Your task to perform on an android device: Go to Maps Image 0: 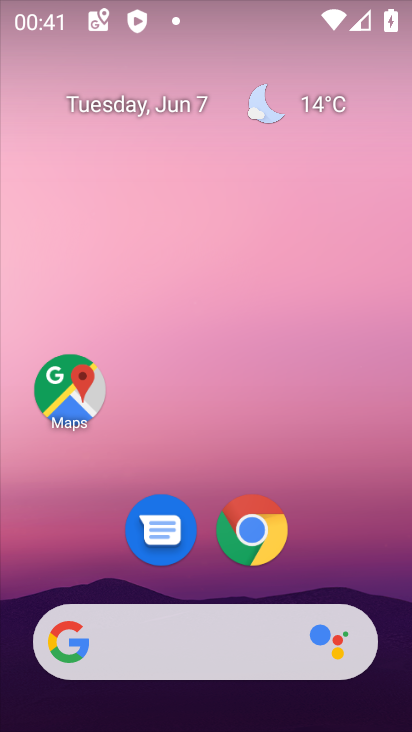
Step 0: click (66, 411)
Your task to perform on an android device: Go to Maps Image 1: 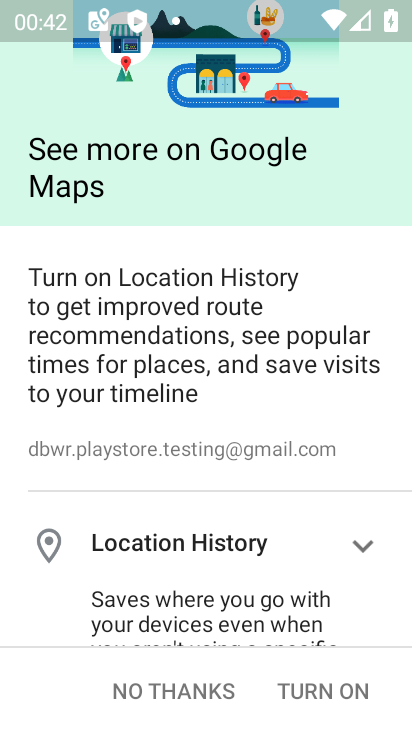
Step 1: click (138, 680)
Your task to perform on an android device: Go to Maps Image 2: 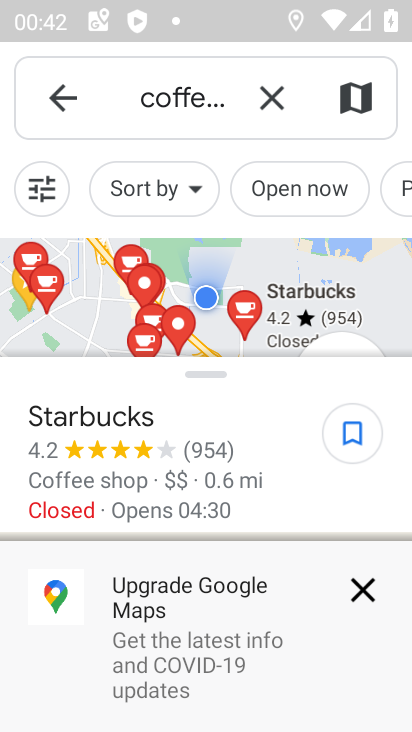
Step 2: click (336, 591)
Your task to perform on an android device: Go to Maps Image 3: 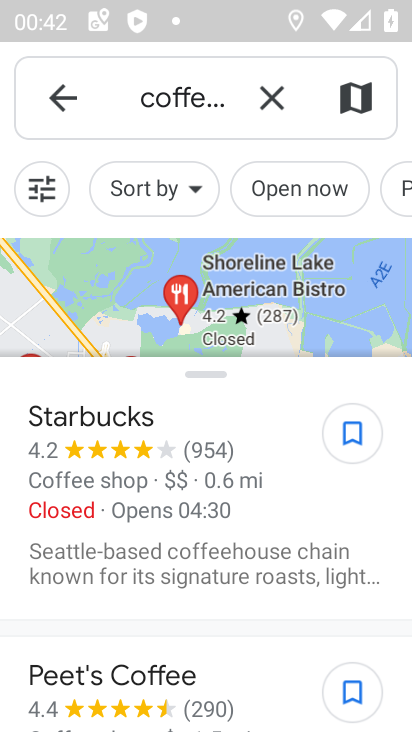
Step 3: task complete